Your task to perform on an android device: Open Chrome and go to the settings page Image 0: 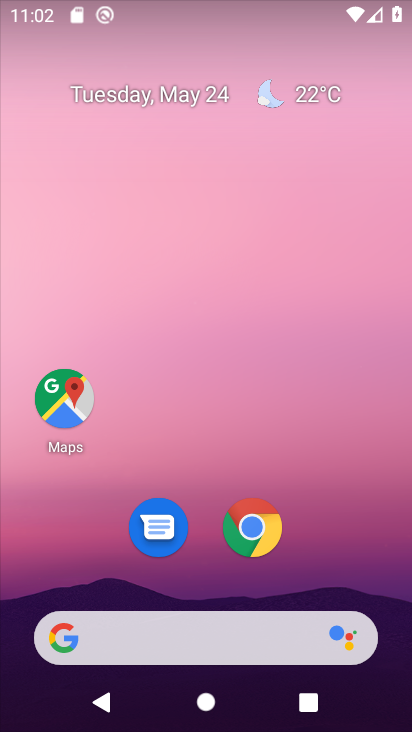
Step 0: press home button
Your task to perform on an android device: Open Chrome and go to the settings page Image 1: 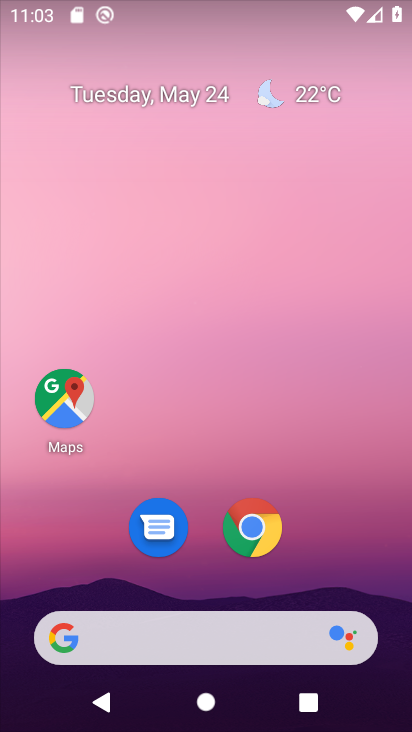
Step 1: click (256, 533)
Your task to perform on an android device: Open Chrome and go to the settings page Image 2: 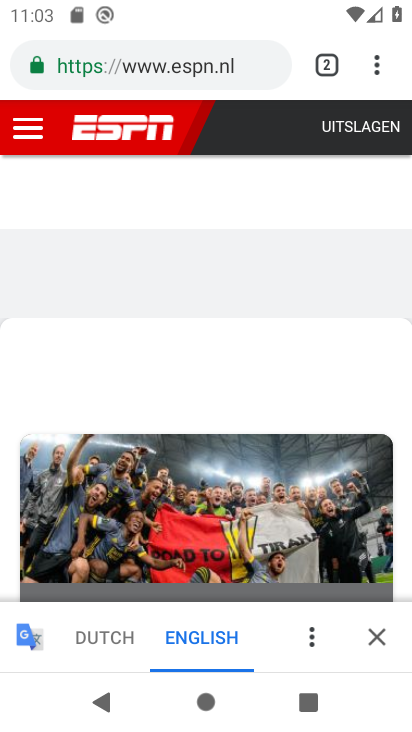
Step 2: task complete